Your task to perform on an android device: open sync settings in chrome Image 0: 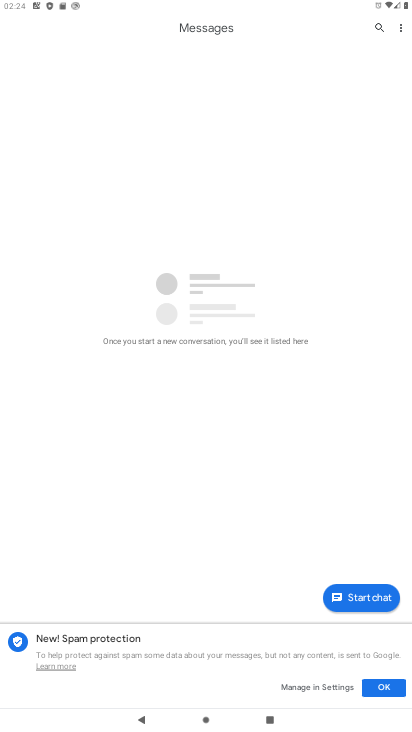
Step 0: press home button
Your task to perform on an android device: open sync settings in chrome Image 1: 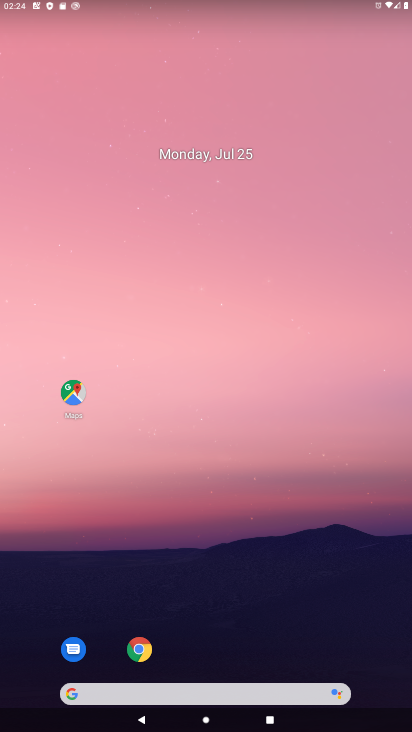
Step 1: click (140, 652)
Your task to perform on an android device: open sync settings in chrome Image 2: 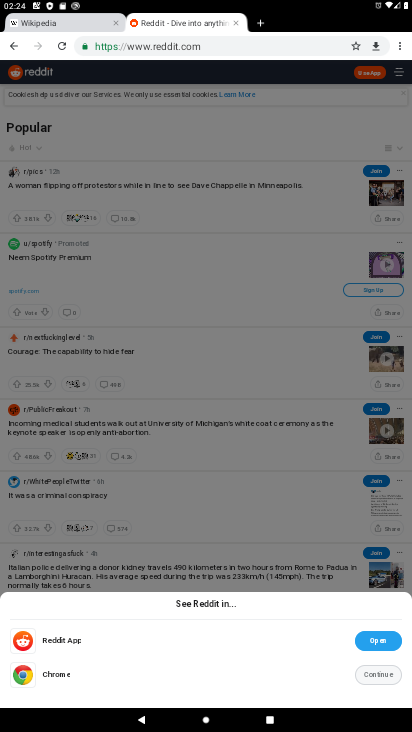
Step 2: click (401, 52)
Your task to perform on an android device: open sync settings in chrome Image 3: 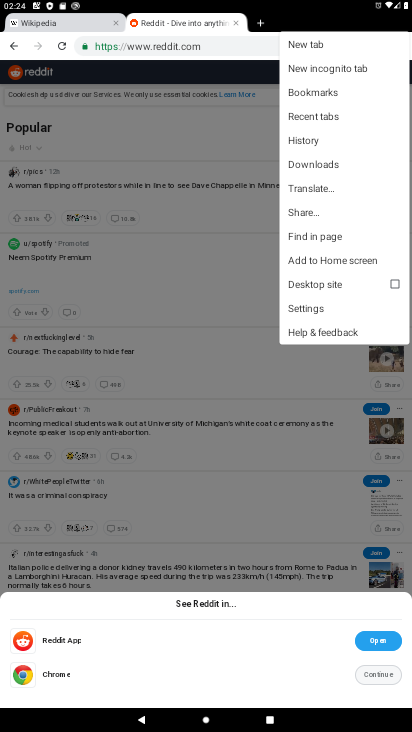
Step 3: click (304, 307)
Your task to perform on an android device: open sync settings in chrome Image 4: 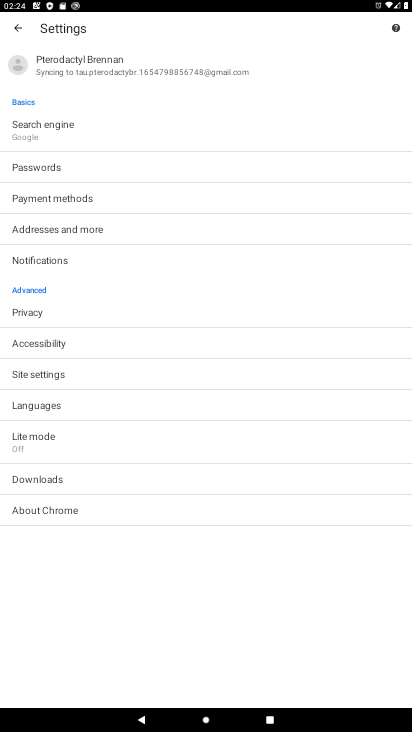
Step 4: click (67, 60)
Your task to perform on an android device: open sync settings in chrome Image 5: 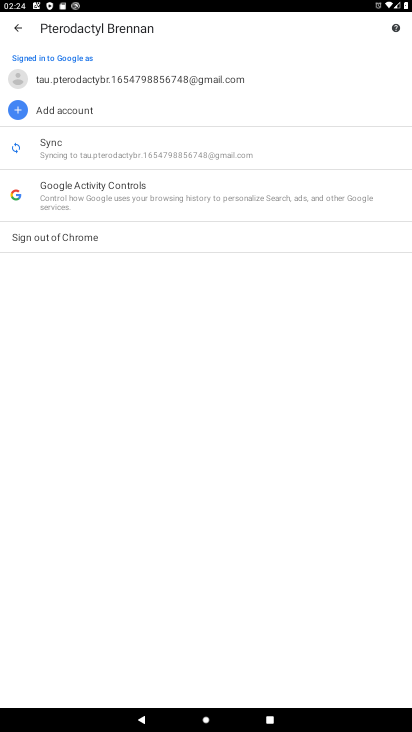
Step 5: click (46, 145)
Your task to perform on an android device: open sync settings in chrome Image 6: 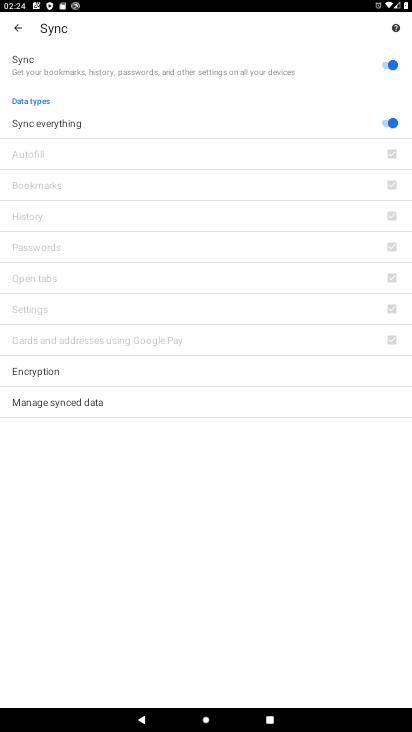
Step 6: task complete